Your task to perform on an android device: What is the news today? Image 0: 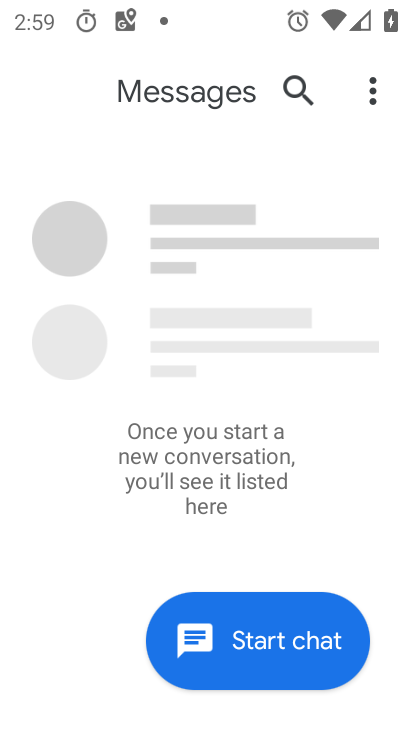
Step 0: press back button
Your task to perform on an android device: What is the news today? Image 1: 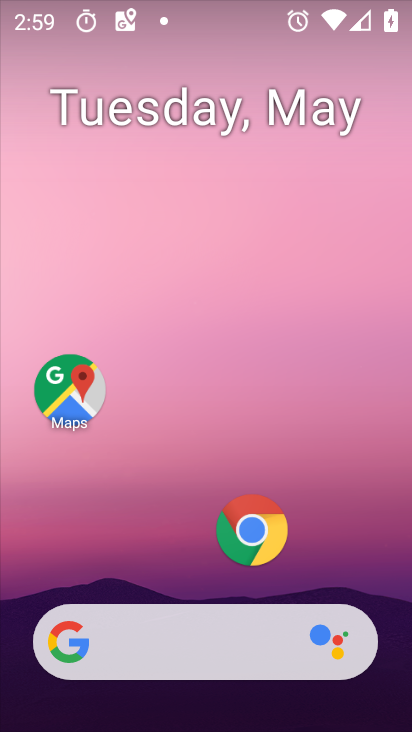
Step 1: drag from (179, 583) to (114, 33)
Your task to perform on an android device: What is the news today? Image 2: 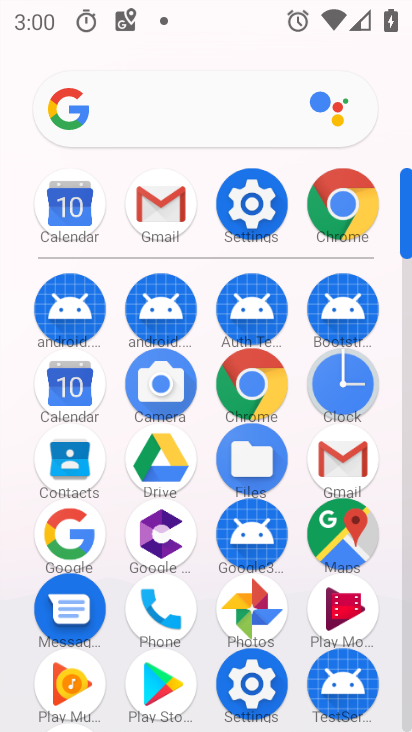
Step 2: click (45, 538)
Your task to perform on an android device: What is the news today? Image 3: 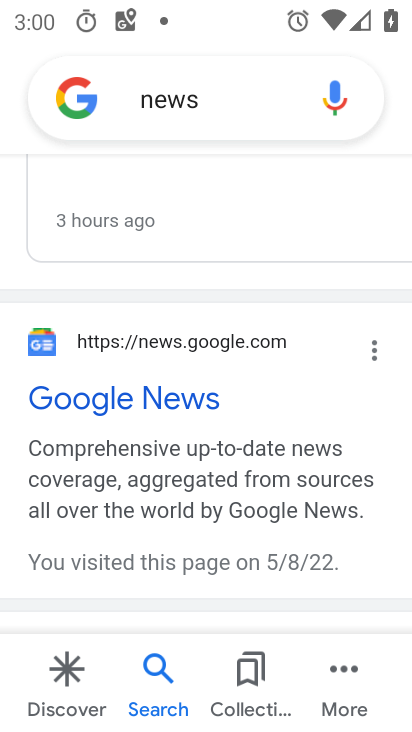
Step 3: task complete